Your task to perform on an android device: turn pop-ups off in chrome Image 0: 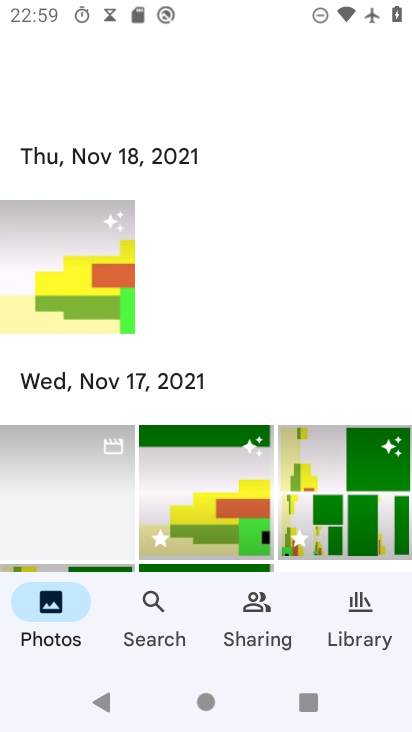
Step 0: press home button
Your task to perform on an android device: turn pop-ups off in chrome Image 1: 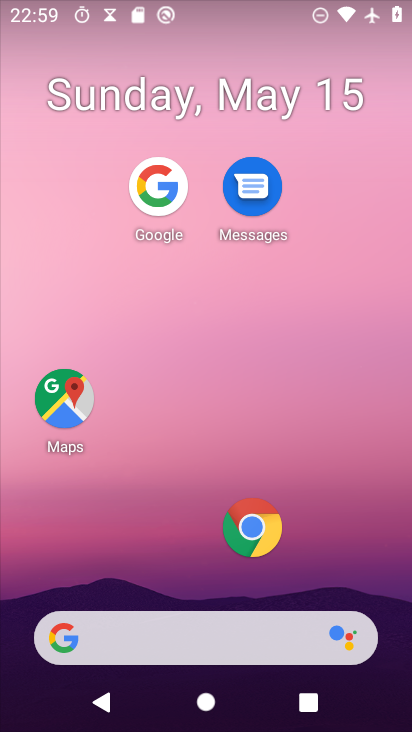
Step 1: drag from (156, 613) to (285, 202)
Your task to perform on an android device: turn pop-ups off in chrome Image 2: 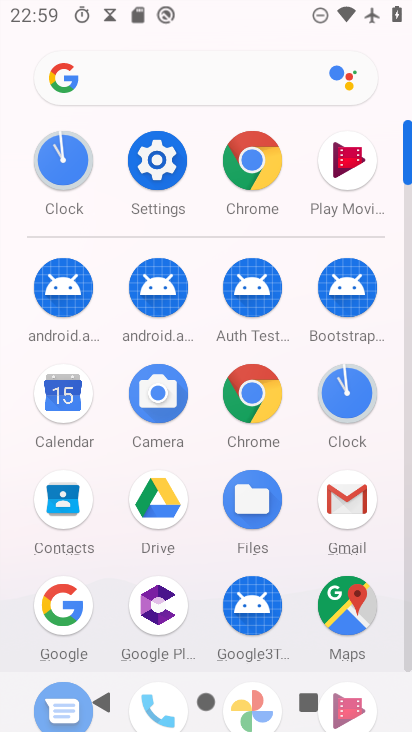
Step 2: click (254, 174)
Your task to perform on an android device: turn pop-ups off in chrome Image 3: 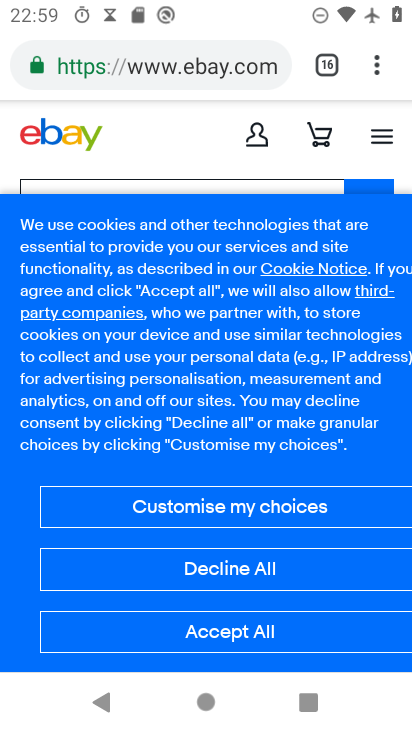
Step 3: drag from (377, 70) to (186, 578)
Your task to perform on an android device: turn pop-ups off in chrome Image 4: 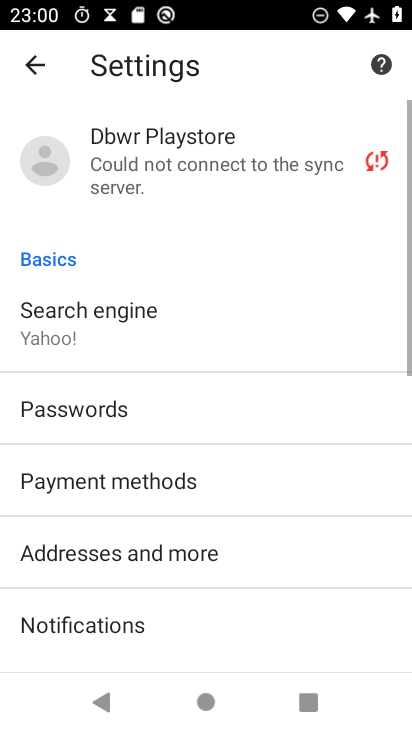
Step 4: drag from (158, 610) to (326, 175)
Your task to perform on an android device: turn pop-ups off in chrome Image 5: 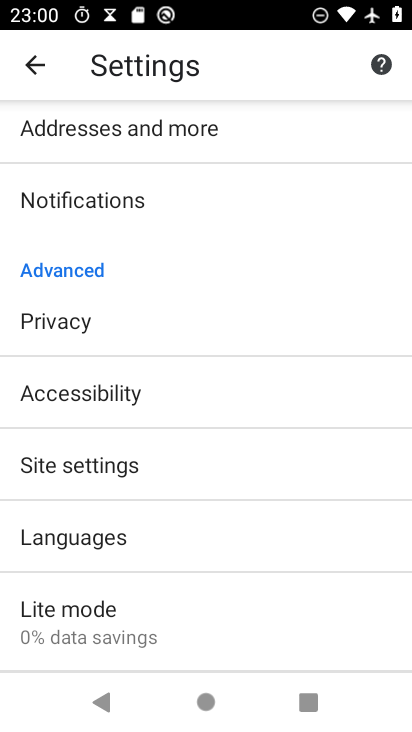
Step 5: click (118, 479)
Your task to perform on an android device: turn pop-ups off in chrome Image 6: 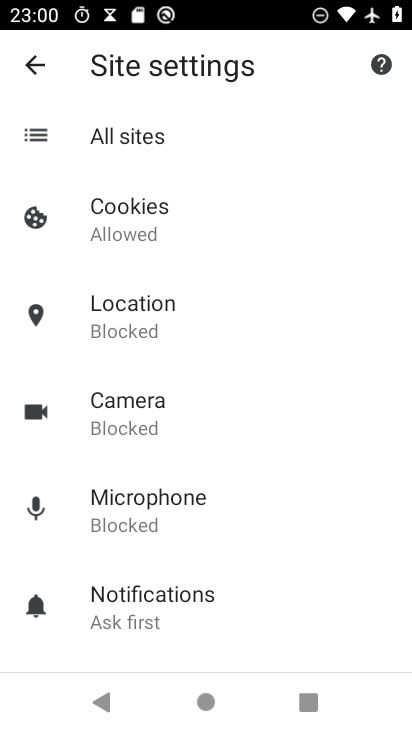
Step 6: drag from (230, 615) to (357, 159)
Your task to perform on an android device: turn pop-ups off in chrome Image 7: 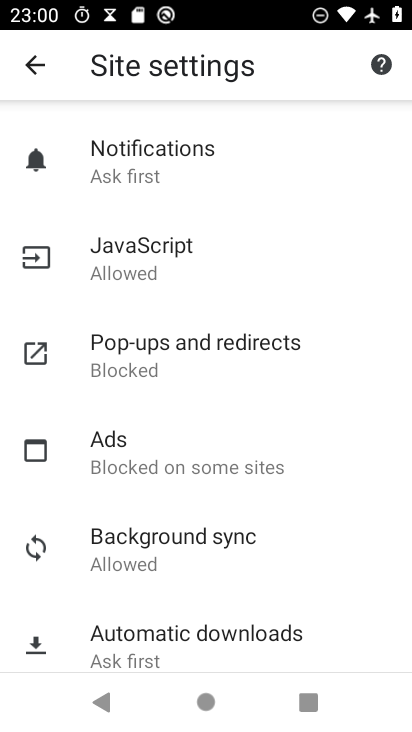
Step 7: click (186, 353)
Your task to perform on an android device: turn pop-ups off in chrome Image 8: 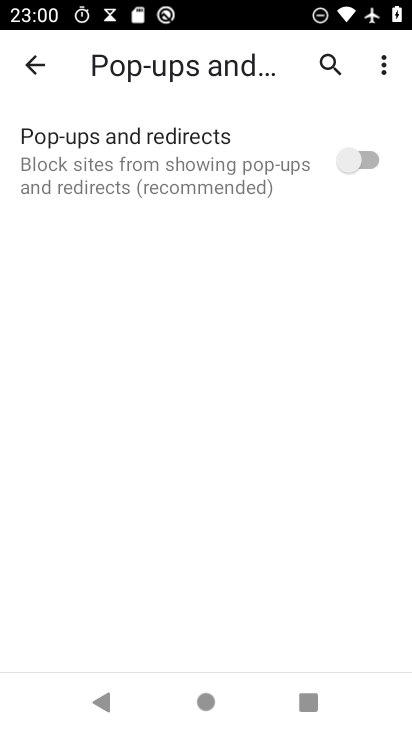
Step 8: task complete